Your task to perform on an android device: Open sound settings Image 0: 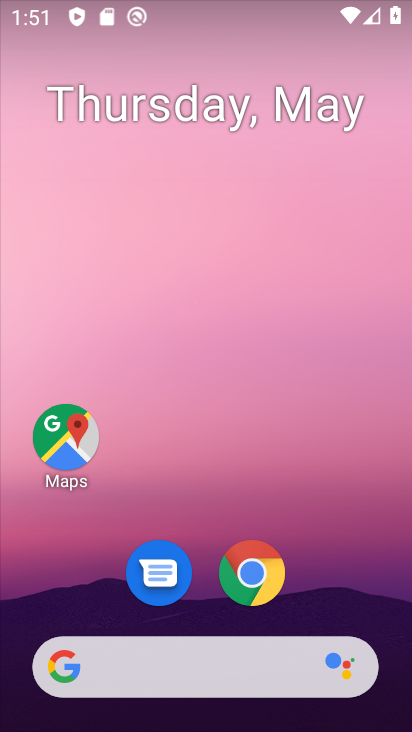
Step 0: drag from (368, 615) to (254, 86)
Your task to perform on an android device: Open sound settings Image 1: 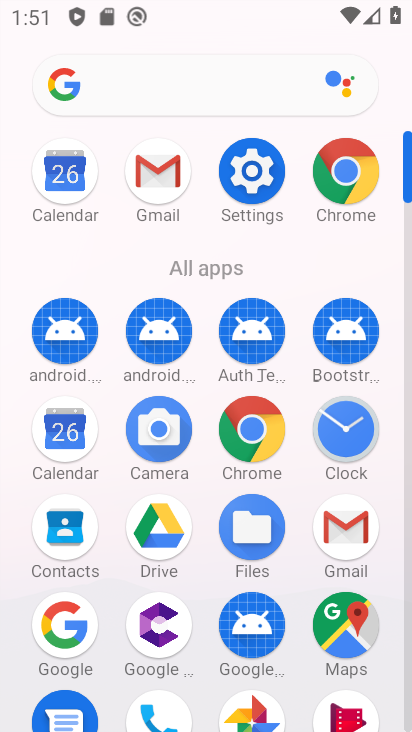
Step 1: click (265, 163)
Your task to perform on an android device: Open sound settings Image 2: 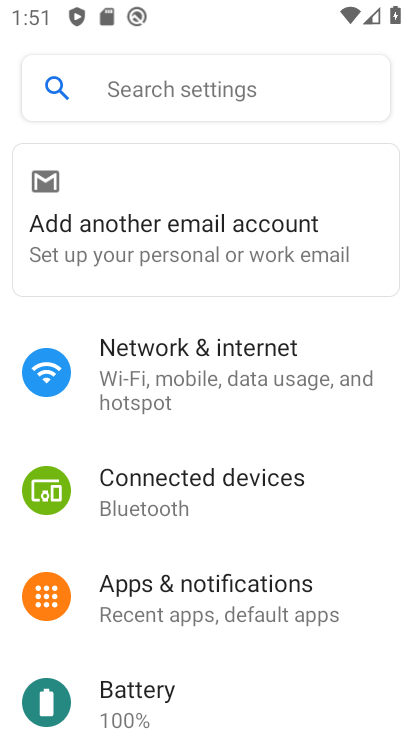
Step 2: drag from (265, 639) to (208, 265)
Your task to perform on an android device: Open sound settings Image 3: 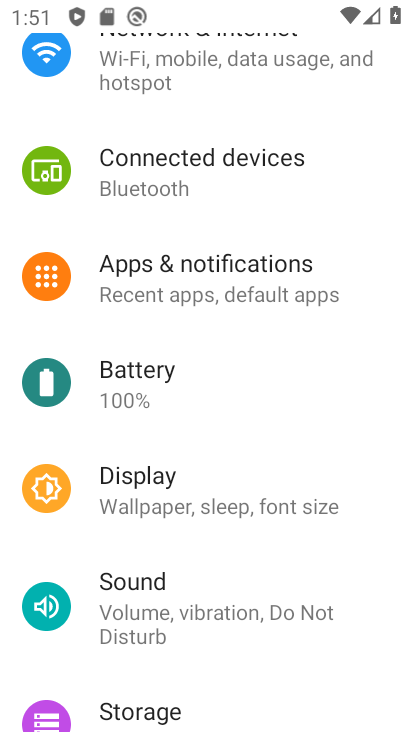
Step 3: click (256, 593)
Your task to perform on an android device: Open sound settings Image 4: 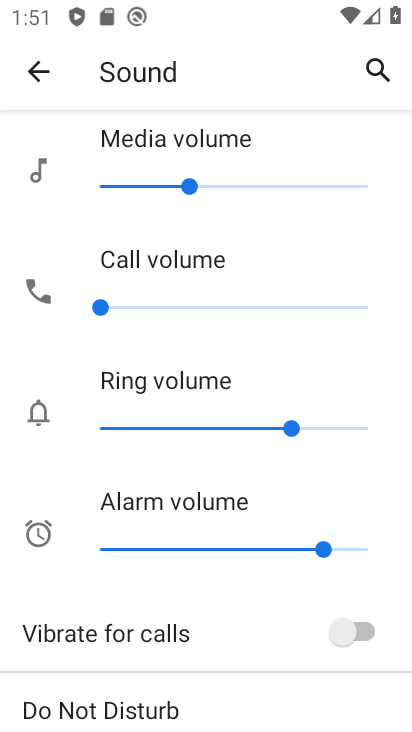
Step 4: task complete